Your task to perform on an android device: Open Chrome and go to the settings page Image 0: 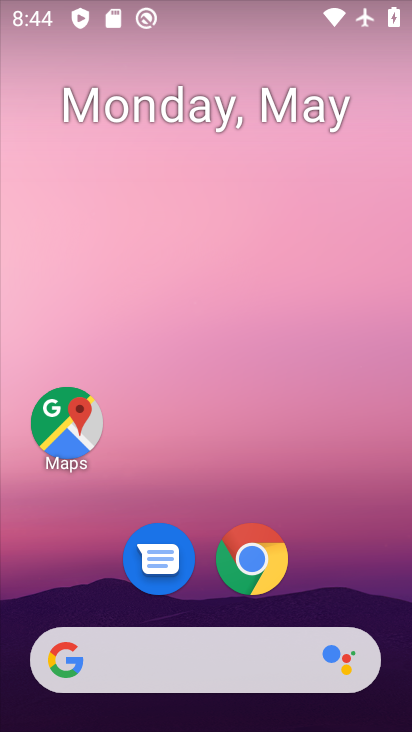
Step 0: click (240, 557)
Your task to perform on an android device: Open Chrome and go to the settings page Image 1: 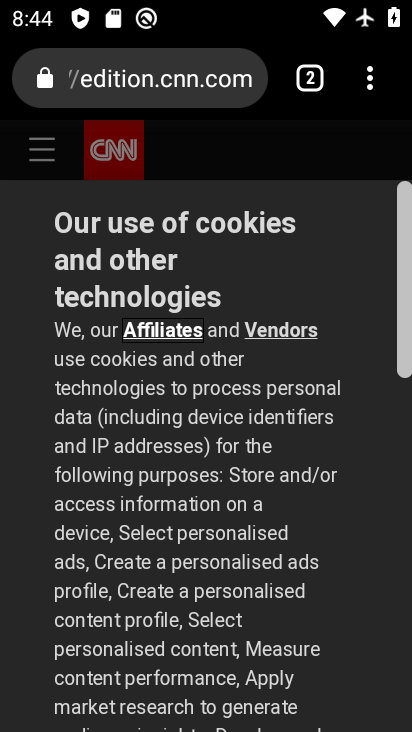
Step 1: click (360, 69)
Your task to perform on an android device: Open Chrome and go to the settings page Image 2: 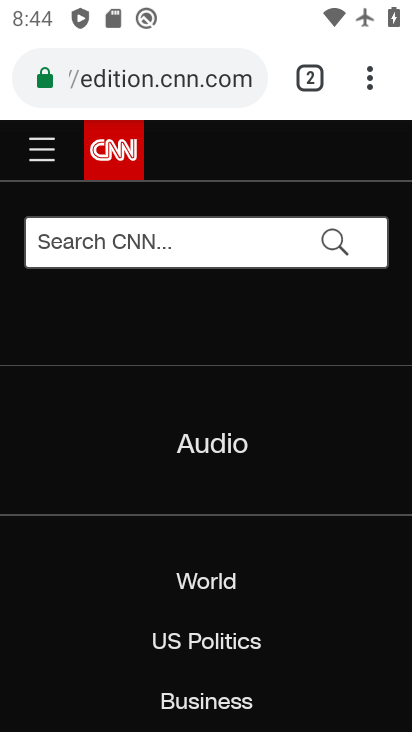
Step 2: click (369, 80)
Your task to perform on an android device: Open Chrome and go to the settings page Image 3: 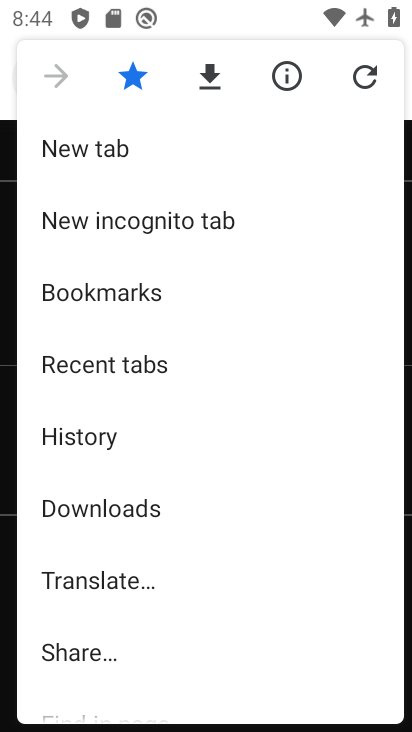
Step 3: drag from (122, 659) to (218, 201)
Your task to perform on an android device: Open Chrome and go to the settings page Image 4: 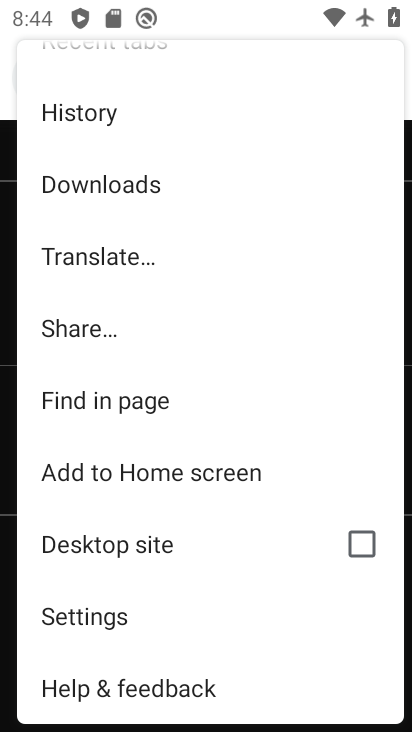
Step 4: click (104, 619)
Your task to perform on an android device: Open Chrome and go to the settings page Image 5: 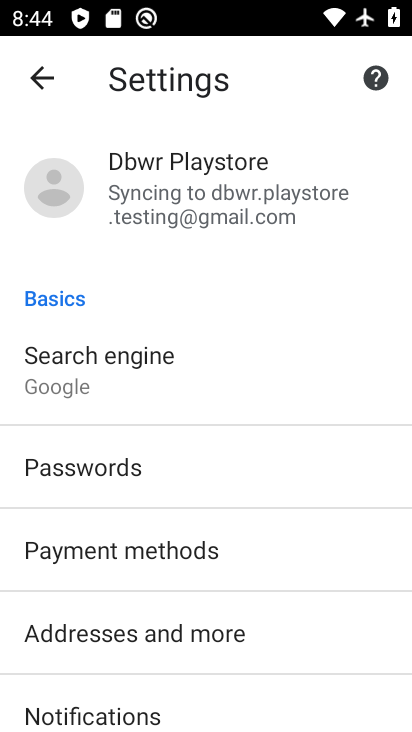
Step 5: task complete